Your task to perform on an android device: turn on showing notifications on the lock screen Image 0: 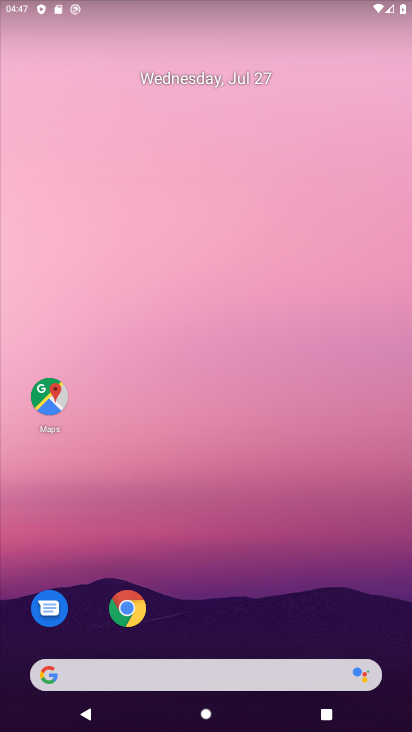
Step 0: press home button
Your task to perform on an android device: turn on showing notifications on the lock screen Image 1: 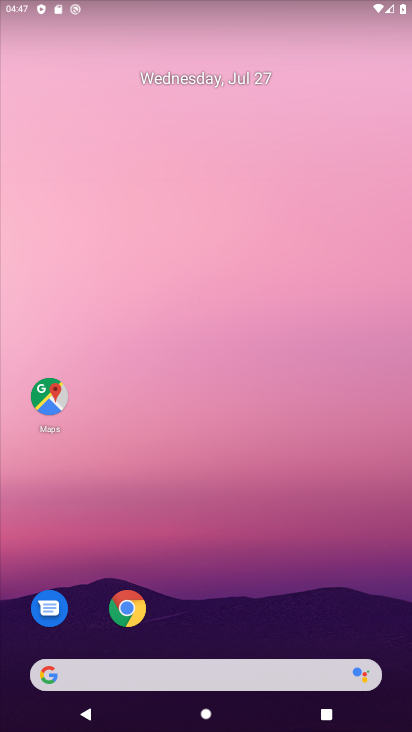
Step 1: drag from (252, 608) to (261, 443)
Your task to perform on an android device: turn on showing notifications on the lock screen Image 2: 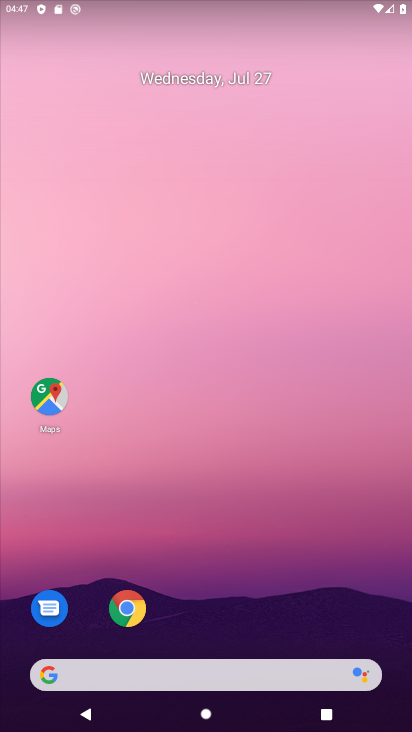
Step 2: drag from (260, 628) to (322, 135)
Your task to perform on an android device: turn on showing notifications on the lock screen Image 3: 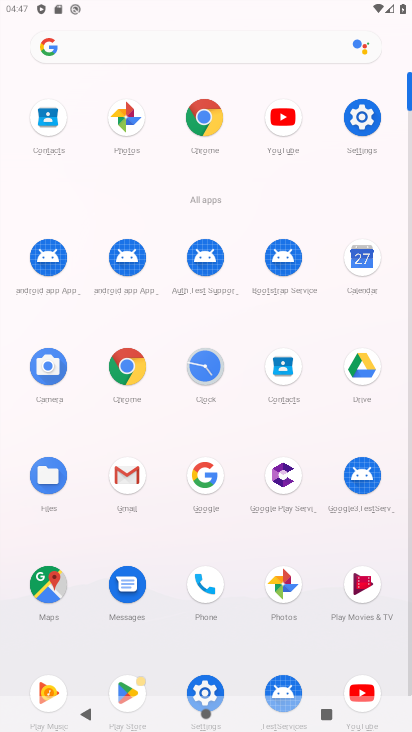
Step 3: click (354, 113)
Your task to perform on an android device: turn on showing notifications on the lock screen Image 4: 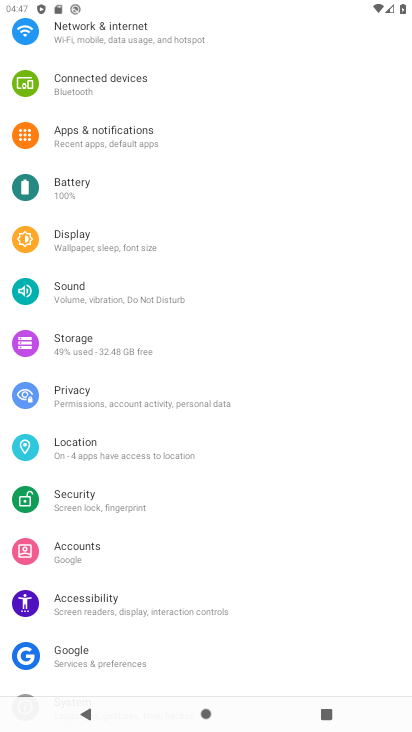
Step 4: click (113, 139)
Your task to perform on an android device: turn on showing notifications on the lock screen Image 5: 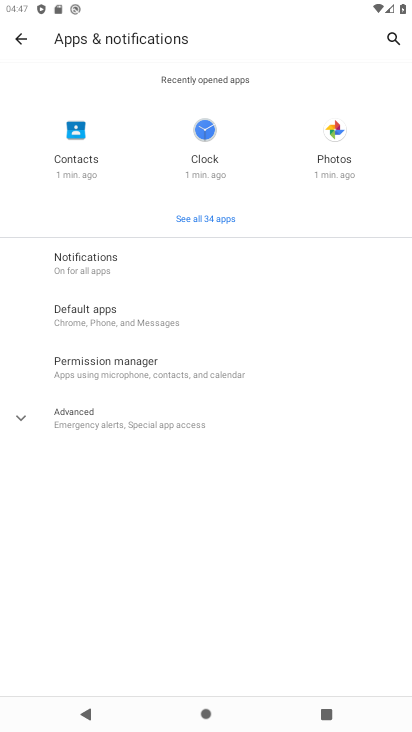
Step 5: click (71, 265)
Your task to perform on an android device: turn on showing notifications on the lock screen Image 6: 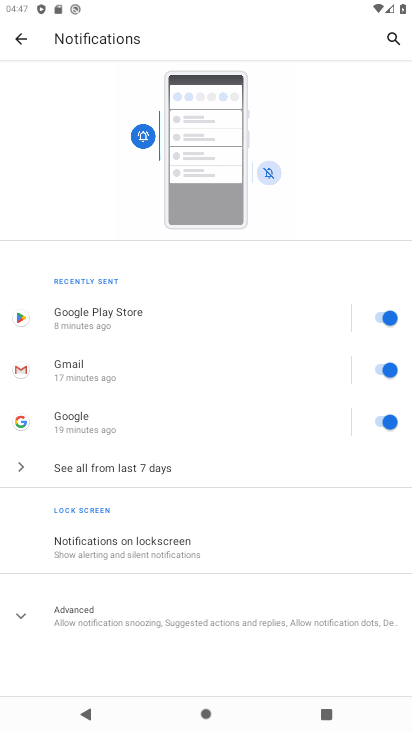
Step 6: click (139, 545)
Your task to perform on an android device: turn on showing notifications on the lock screen Image 7: 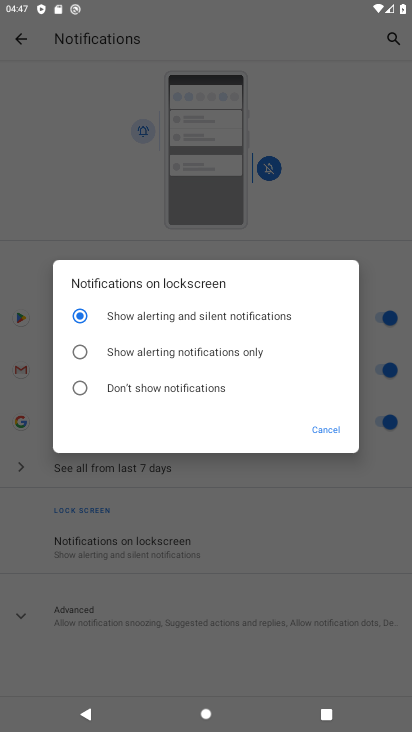
Step 7: task complete